Your task to perform on an android device: Open Amazon Image 0: 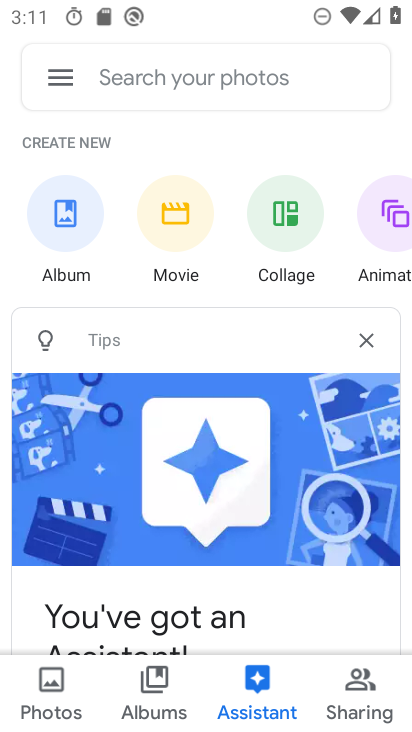
Step 0: press home button
Your task to perform on an android device: Open Amazon Image 1: 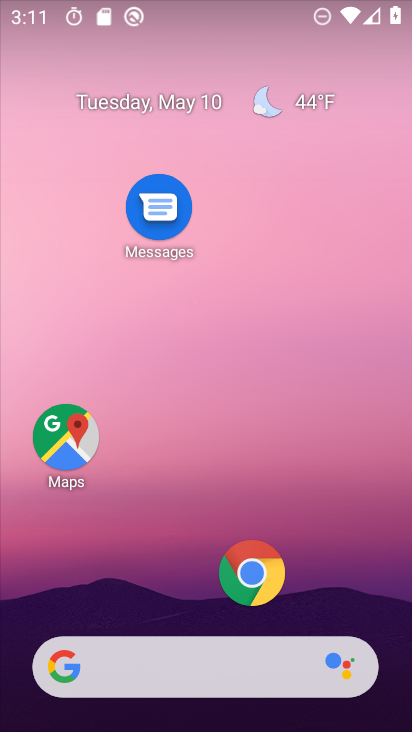
Step 1: click (242, 578)
Your task to perform on an android device: Open Amazon Image 2: 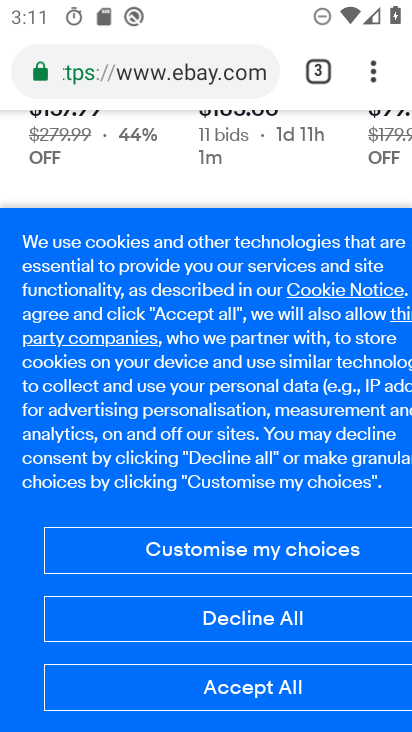
Step 2: click (329, 76)
Your task to perform on an android device: Open Amazon Image 3: 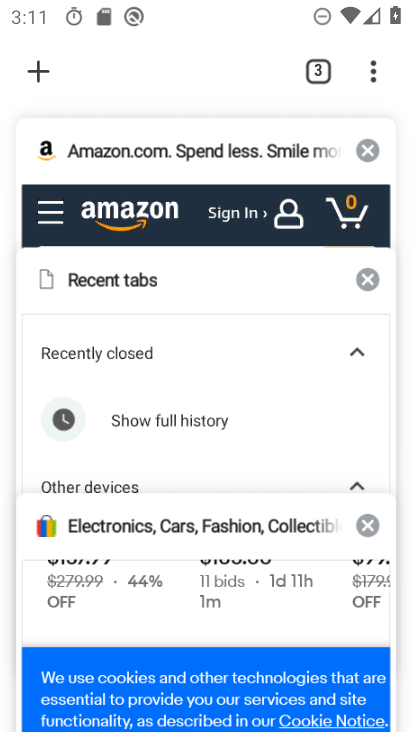
Step 3: click (221, 216)
Your task to perform on an android device: Open Amazon Image 4: 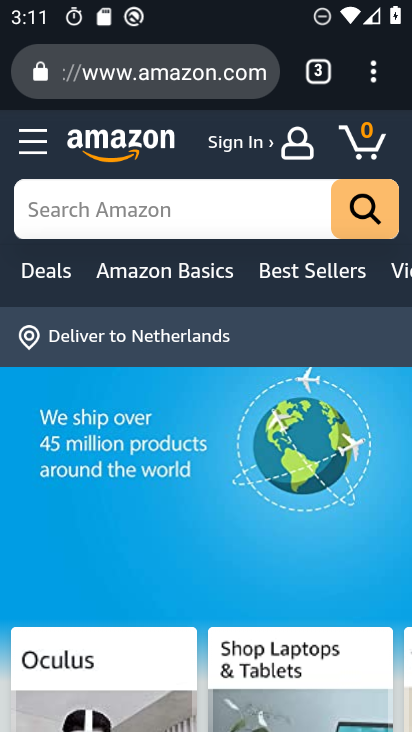
Step 4: task complete